Your task to perform on an android device: Is it going to rain today? Image 0: 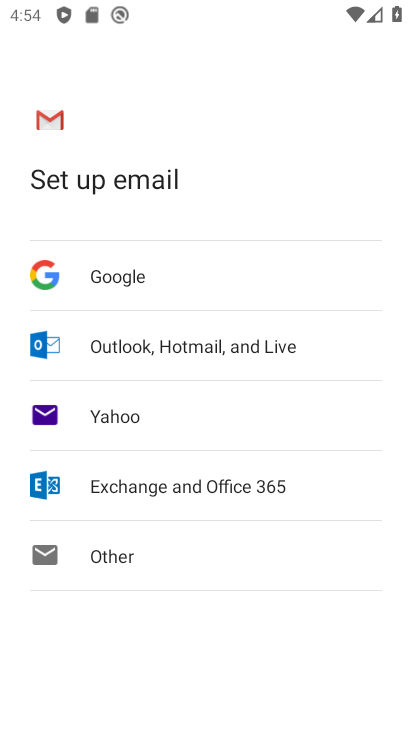
Step 0: press back button
Your task to perform on an android device: Is it going to rain today? Image 1: 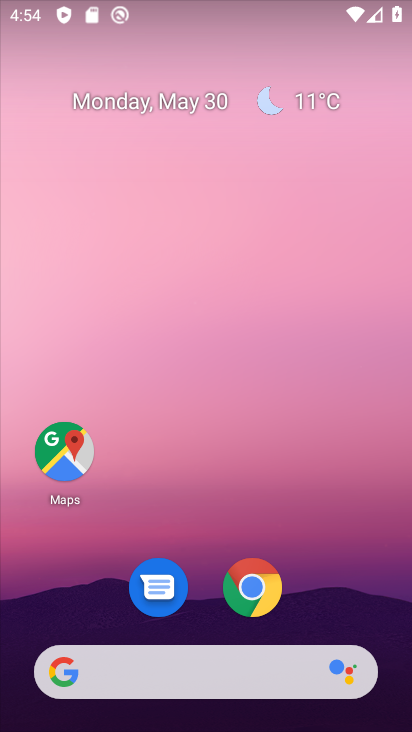
Step 1: drag from (360, 599) to (220, 8)
Your task to perform on an android device: Is it going to rain today? Image 2: 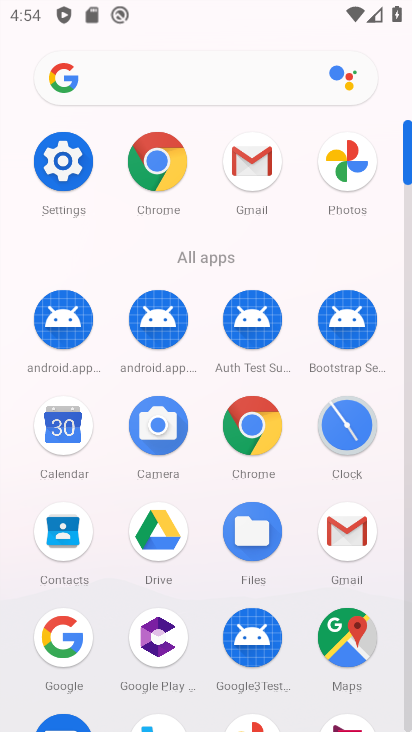
Step 2: drag from (10, 522) to (9, 206)
Your task to perform on an android device: Is it going to rain today? Image 3: 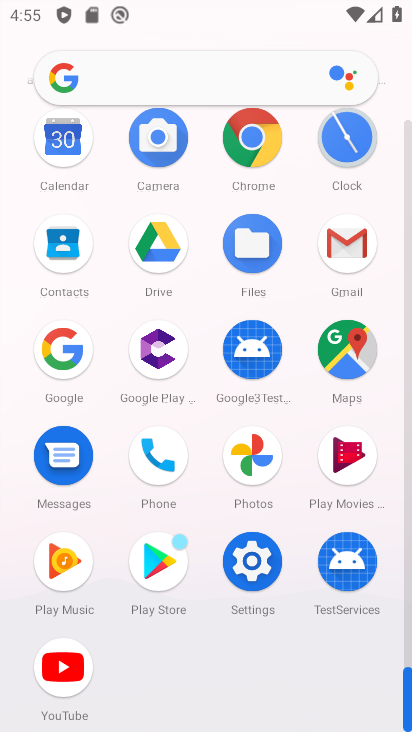
Step 3: click (244, 131)
Your task to perform on an android device: Is it going to rain today? Image 4: 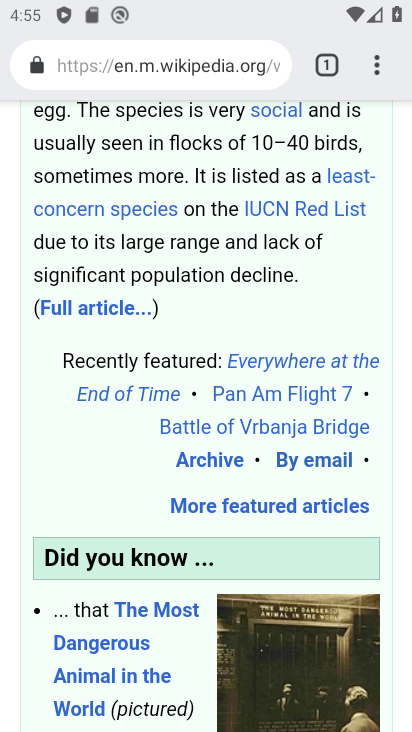
Step 4: click (193, 53)
Your task to perform on an android device: Is it going to rain today? Image 5: 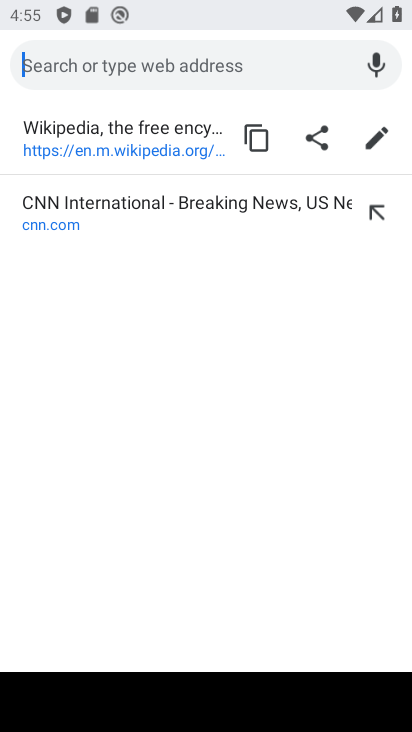
Step 5: type "Is it going to rain today?"
Your task to perform on an android device: Is it going to rain today? Image 6: 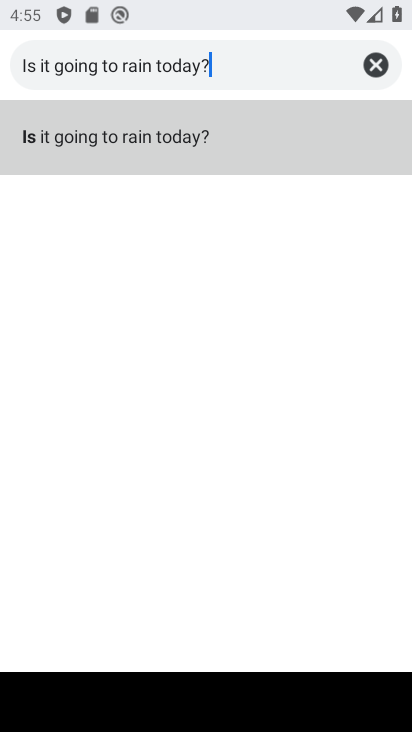
Step 6: type ""
Your task to perform on an android device: Is it going to rain today? Image 7: 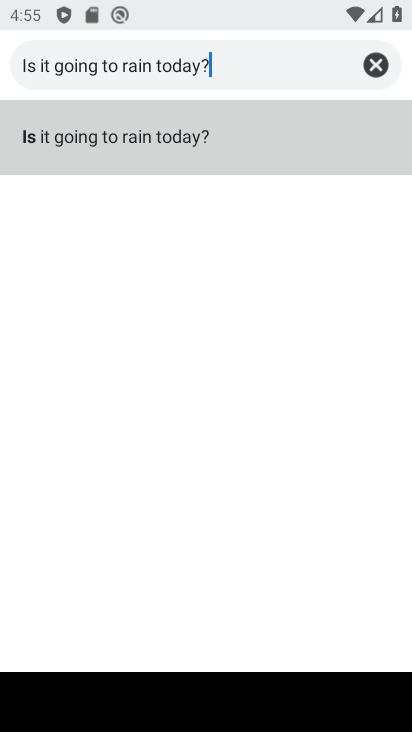
Step 7: click (144, 128)
Your task to perform on an android device: Is it going to rain today? Image 8: 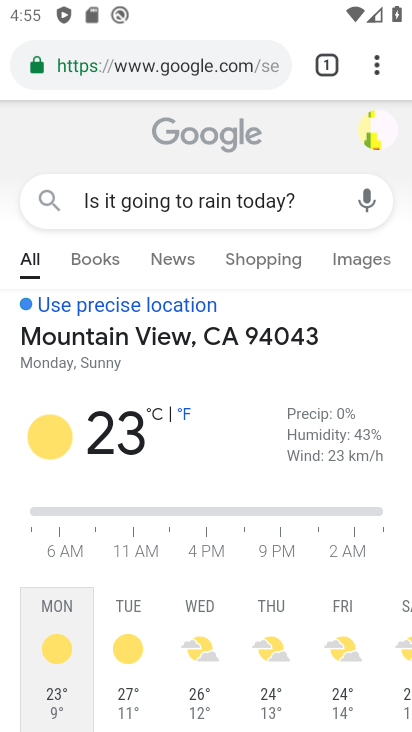
Step 8: task complete